Your task to perform on an android device: Toggle the flashlight Image 0: 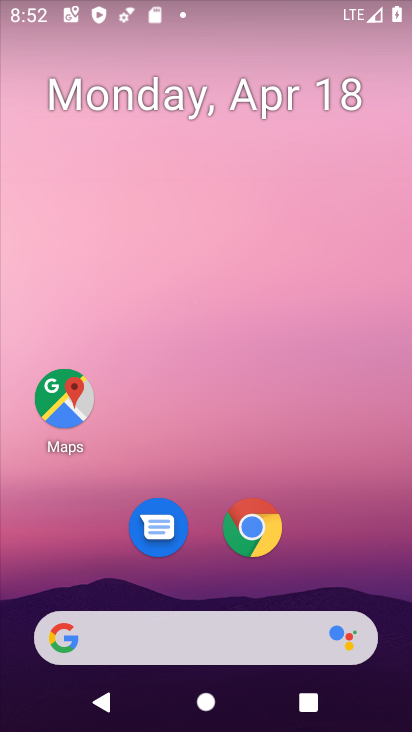
Step 0: drag from (391, 622) to (259, 6)
Your task to perform on an android device: Toggle the flashlight Image 1: 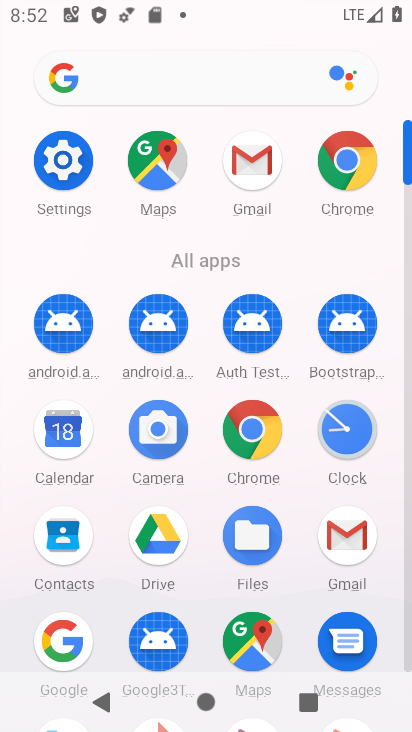
Step 1: click (65, 155)
Your task to perform on an android device: Toggle the flashlight Image 2: 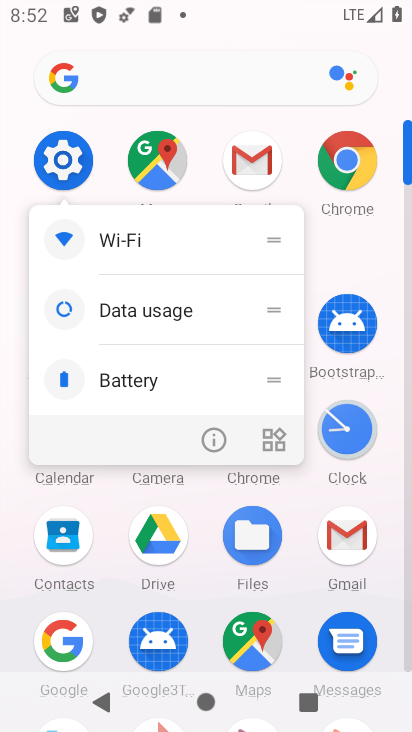
Step 2: click (9, 189)
Your task to perform on an android device: Toggle the flashlight Image 3: 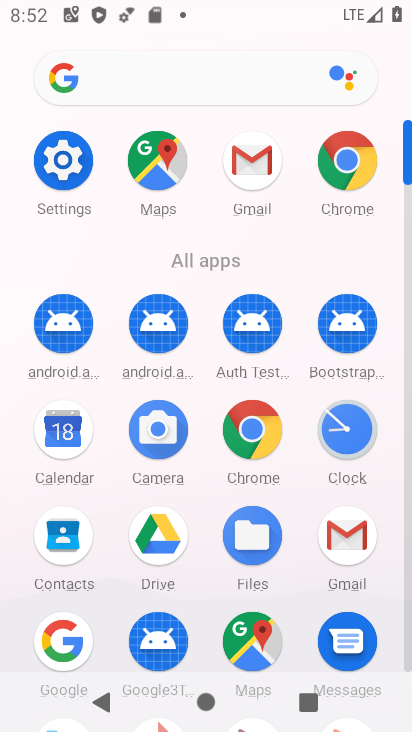
Step 3: click (64, 155)
Your task to perform on an android device: Toggle the flashlight Image 4: 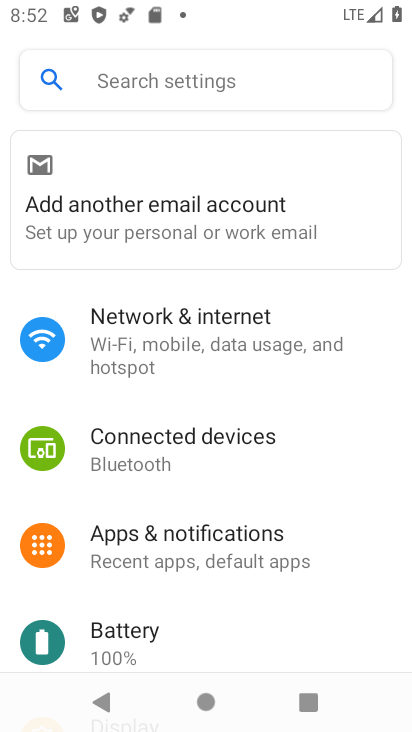
Step 4: drag from (345, 380) to (347, 96)
Your task to perform on an android device: Toggle the flashlight Image 5: 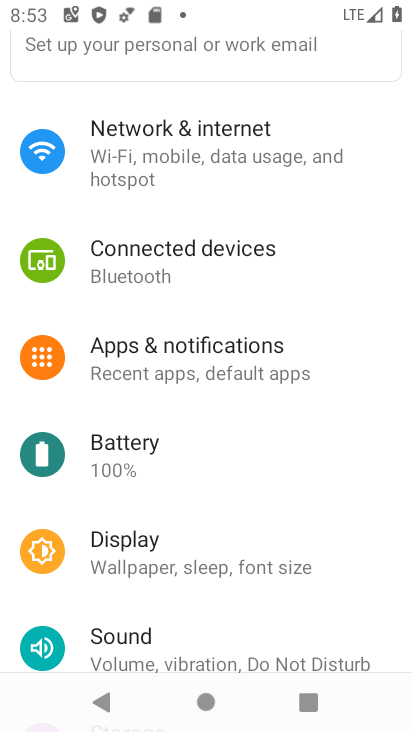
Step 5: drag from (300, 449) to (317, 138)
Your task to perform on an android device: Toggle the flashlight Image 6: 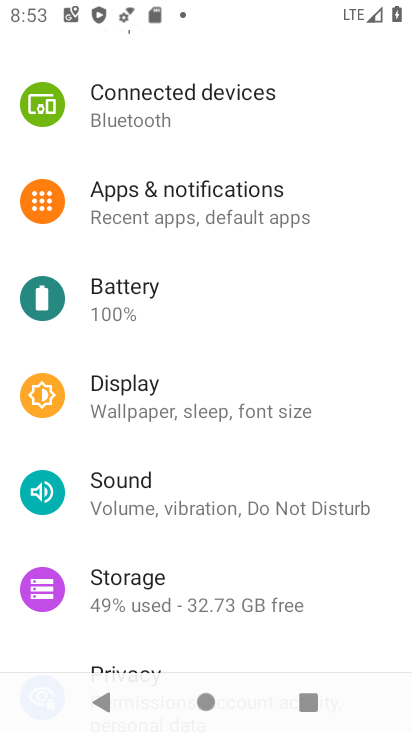
Step 6: drag from (342, 416) to (343, 160)
Your task to perform on an android device: Toggle the flashlight Image 7: 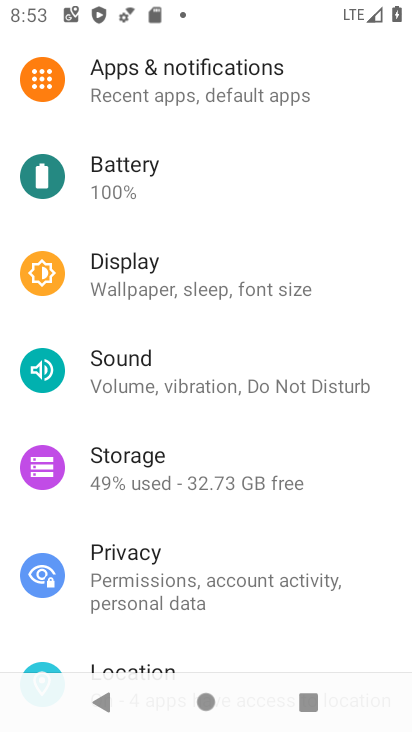
Step 7: drag from (330, 451) to (322, 79)
Your task to perform on an android device: Toggle the flashlight Image 8: 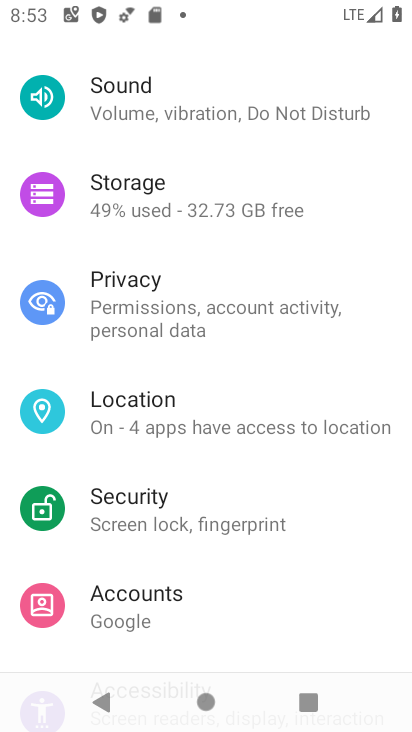
Step 8: drag from (275, 209) to (267, 561)
Your task to perform on an android device: Toggle the flashlight Image 9: 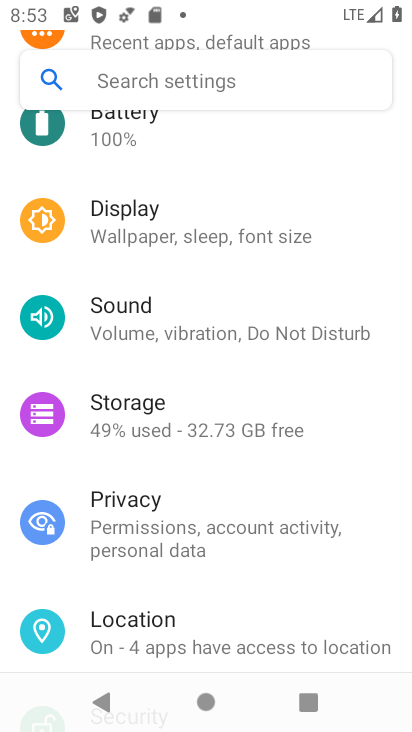
Step 9: drag from (294, 205) to (304, 541)
Your task to perform on an android device: Toggle the flashlight Image 10: 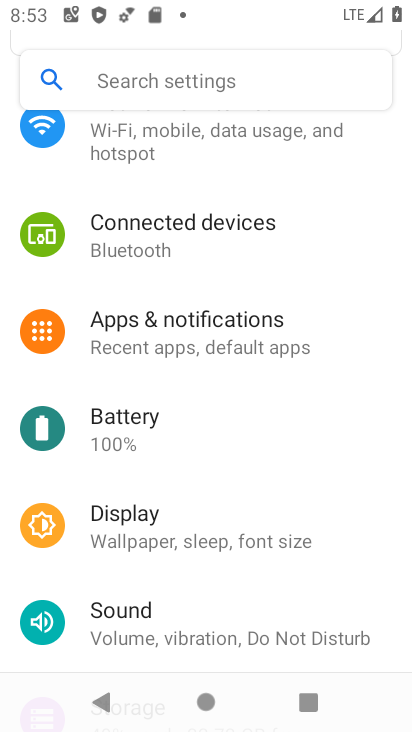
Step 10: drag from (288, 370) to (283, 551)
Your task to perform on an android device: Toggle the flashlight Image 11: 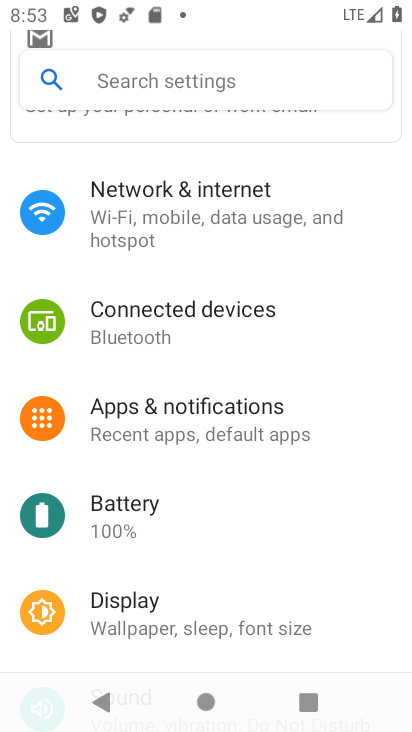
Step 11: click (226, 237)
Your task to perform on an android device: Toggle the flashlight Image 12: 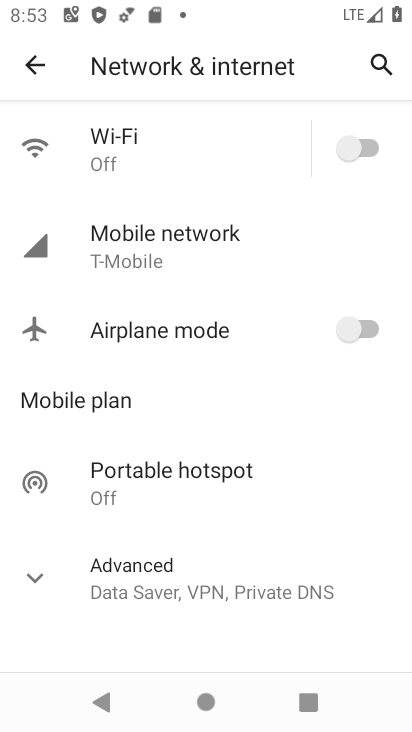
Step 12: click (27, 568)
Your task to perform on an android device: Toggle the flashlight Image 13: 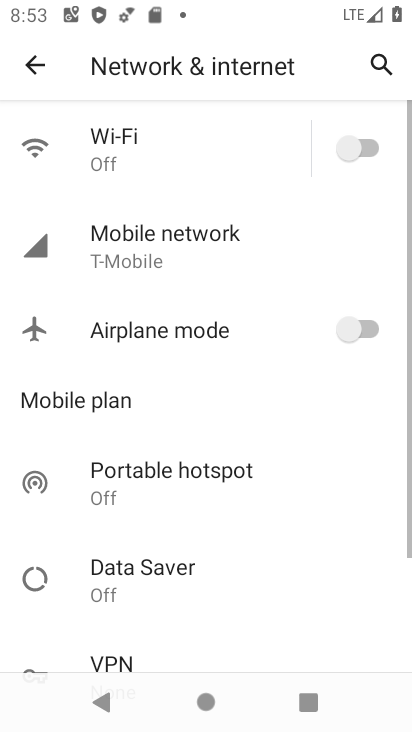
Step 13: task complete